Your task to perform on an android device: star an email in the gmail app Image 0: 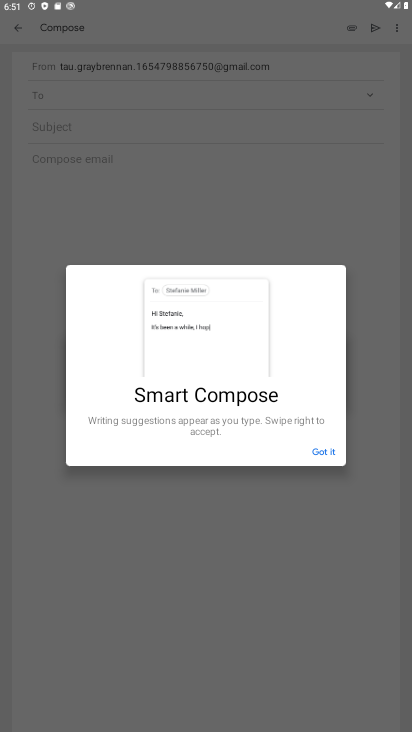
Step 0: press home button
Your task to perform on an android device: star an email in the gmail app Image 1: 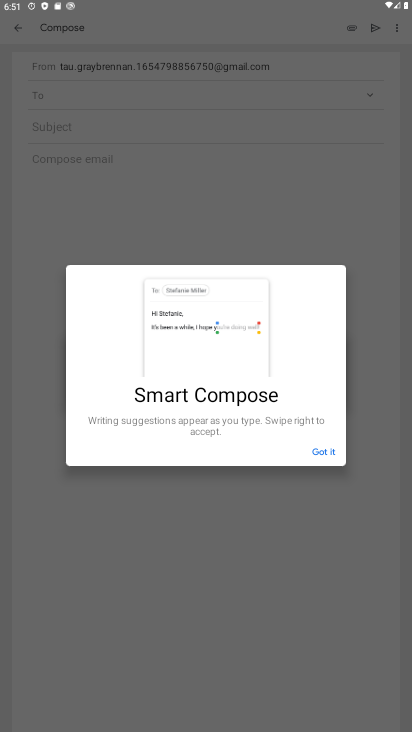
Step 1: drag from (396, 707) to (194, 0)
Your task to perform on an android device: star an email in the gmail app Image 2: 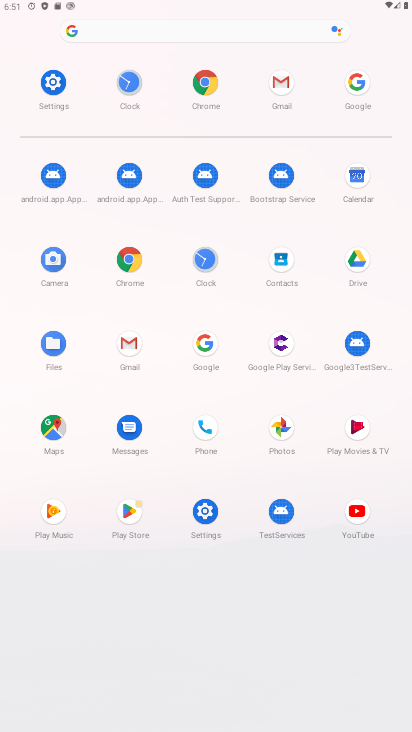
Step 2: click (132, 353)
Your task to perform on an android device: star an email in the gmail app Image 3: 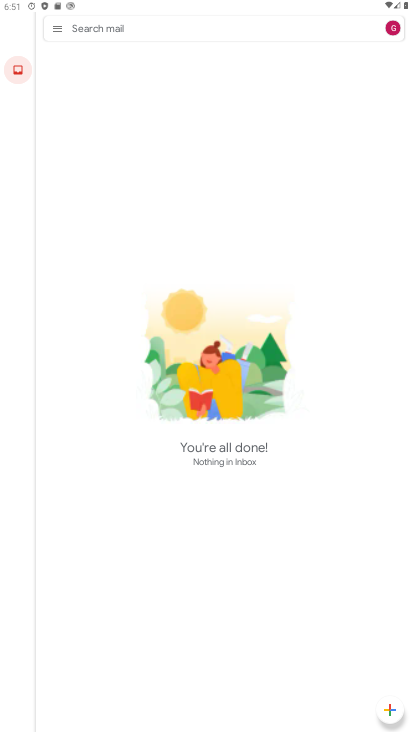
Step 3: task complete